Your task to perform on an android device: turn off picture-in-picture Image 0: 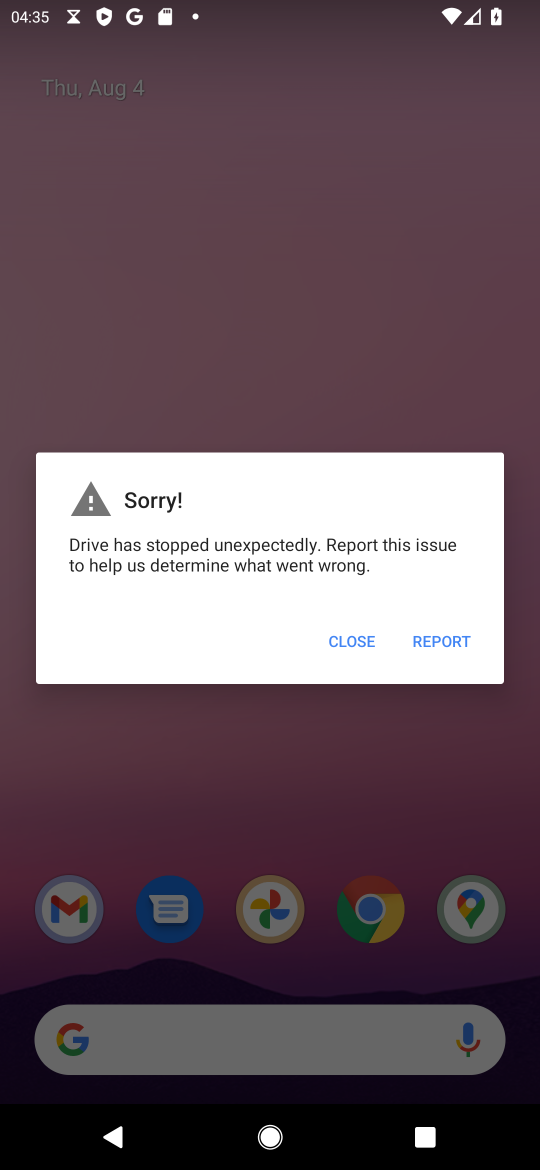
Step 0: press home button
Your task to perform on an android device: turn off picture-in-picture Image 1: 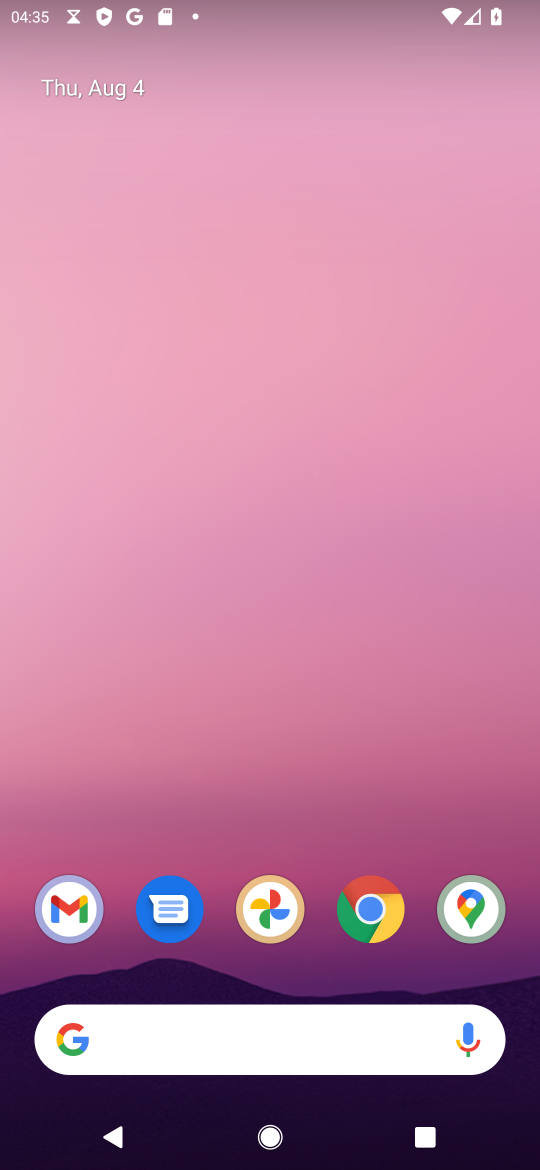
Step 1: click (372, 901)
Your task to perform on an android device: turn off picture-in-picture Image 2: 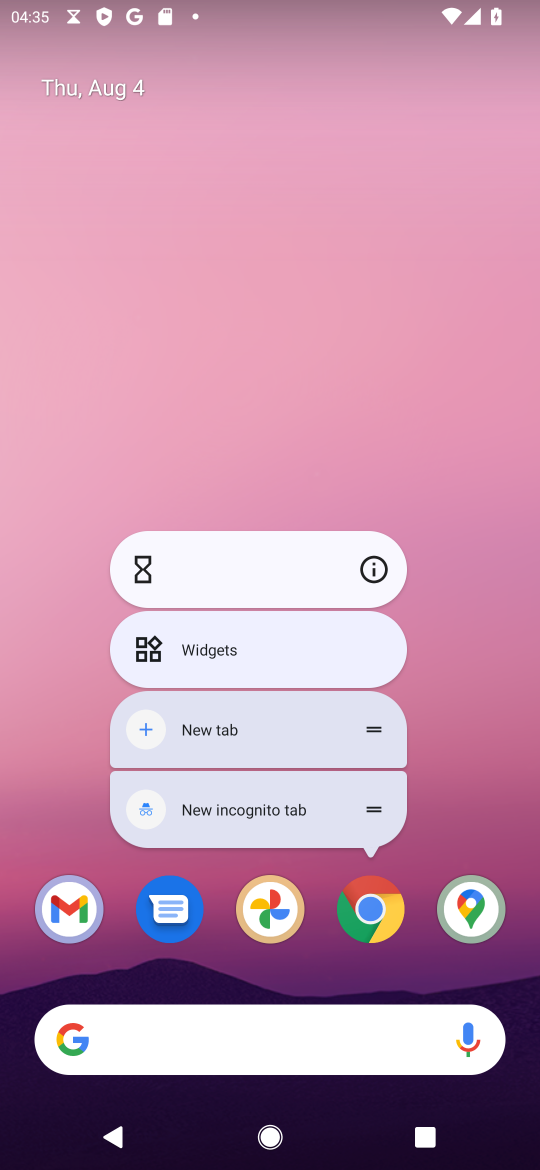
Step 2: click (373, 565)
Your task to perform on an android device: turn off picture-in-picture Image 3: 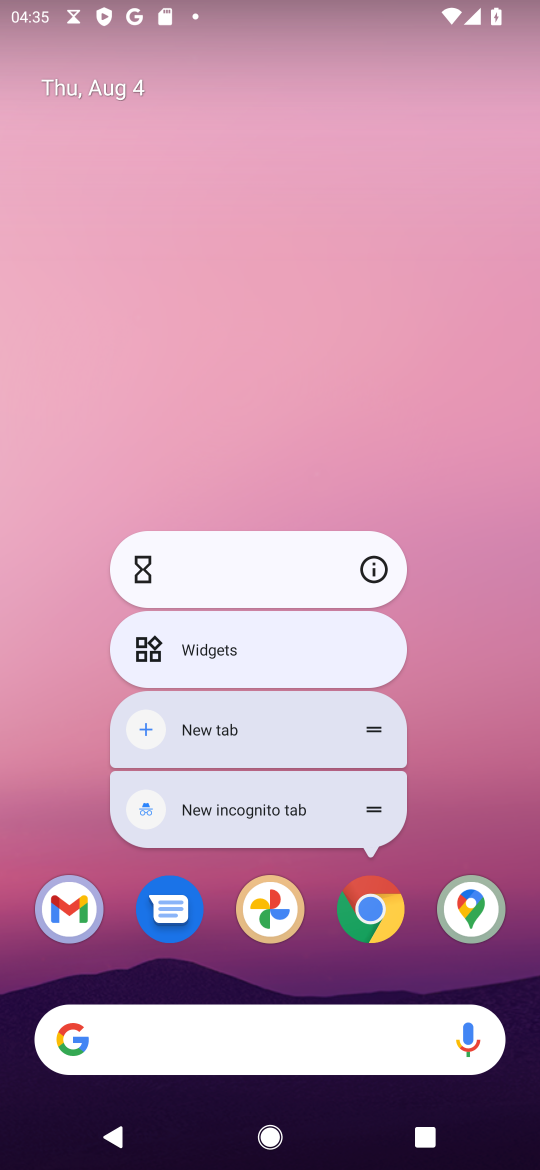
Step 3: click (370, 567)
Your task to perform on an android device: turn off picture-in-picture Image 4: 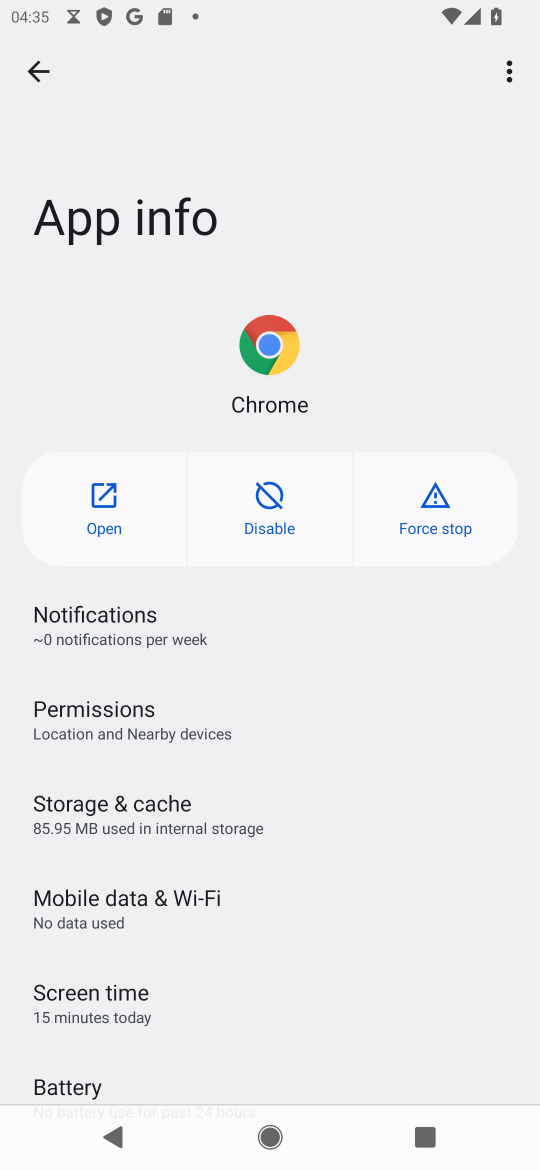
Step 4: drag from (207, 1072) to (444, 244)
Your task to perform on an android device: turn off picture-in-picture Image 5: 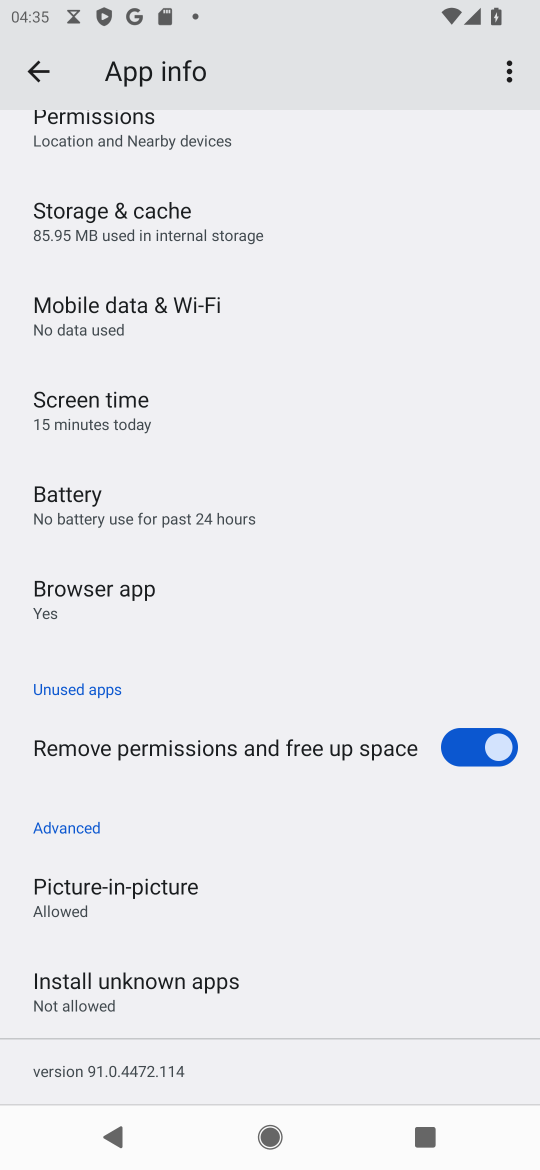
Step 5: drag from (278, 944) to (408, 447)
Your task to perform on an android device: turn off picture-in-picture Image 6: 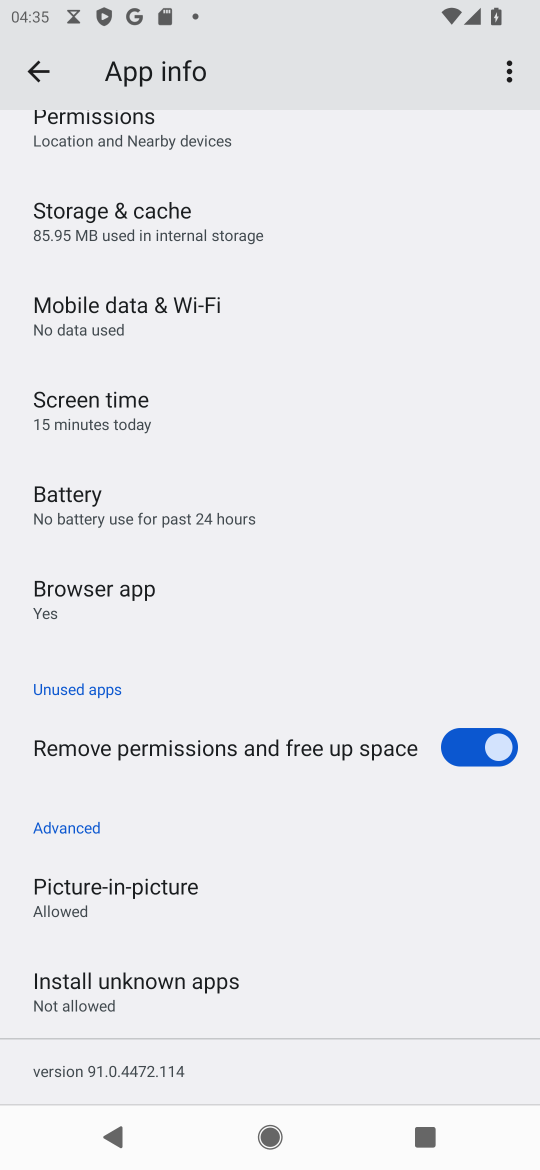
Step 6: click (161, 878)
Your task to perform on an android device: turn off picture-in-picture Image 7: 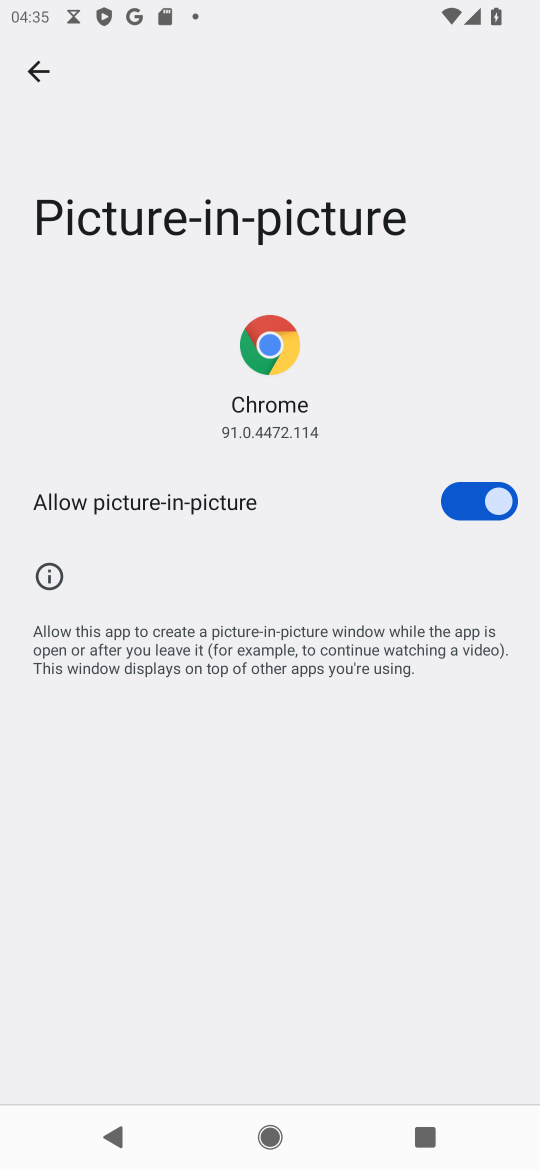
Step 7: click (456, 495)
Your task to perform on an android device: turn off picture-in-picture Image 8: 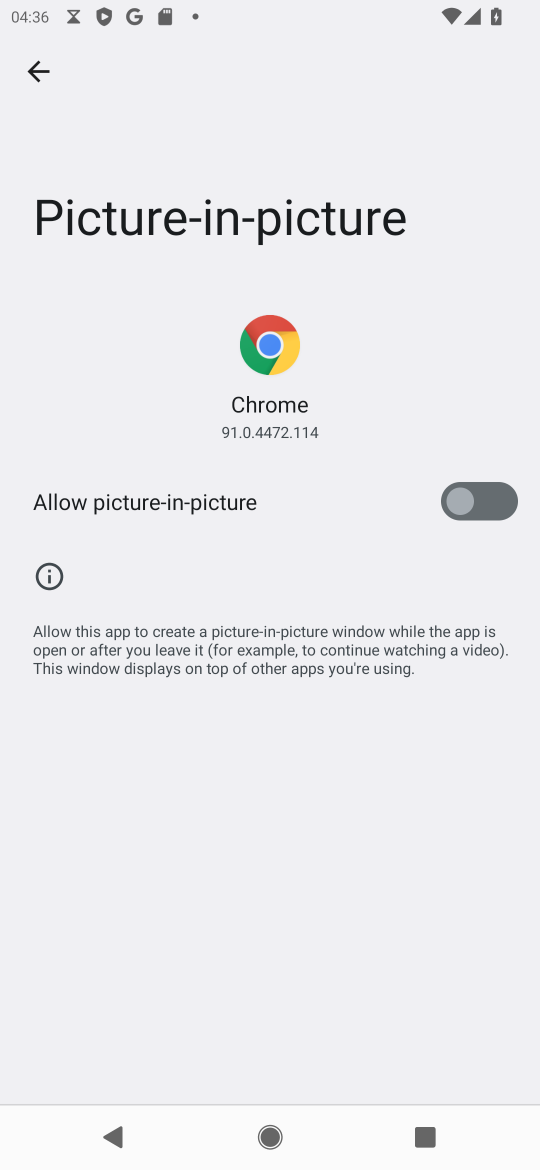
Step 8: task complete